Your task to perform on an android device: open chrome and create a bookmark for the current page Image 0: 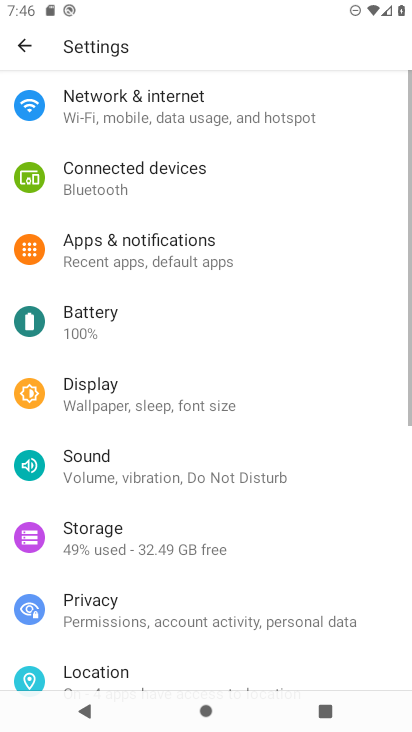
Step 0: press home button
Your task to perform on an android device: open chrome and create a bookmark for the current page Image 1: 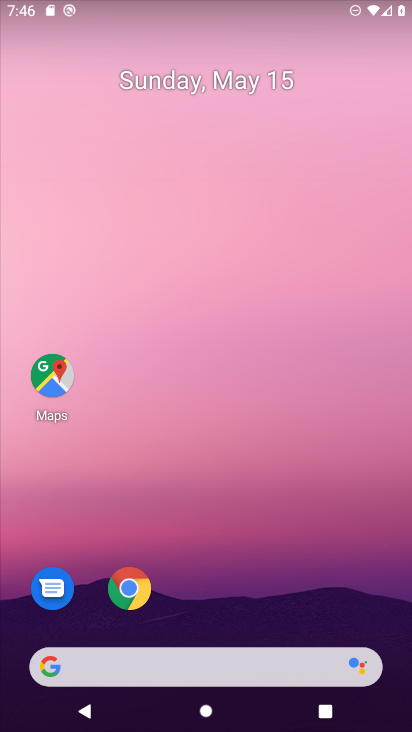
Step 1: click (125, 582)
Your task to perform on an android device: open chrome and create a bookmark for the current page Image 2: 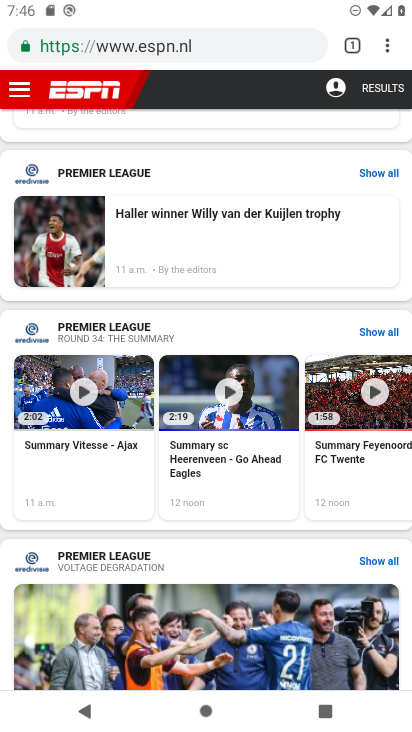
Step 2: click (385, 37)
Your task to perform on an android device: open chrome and create a bookmark for the current page Image 3: 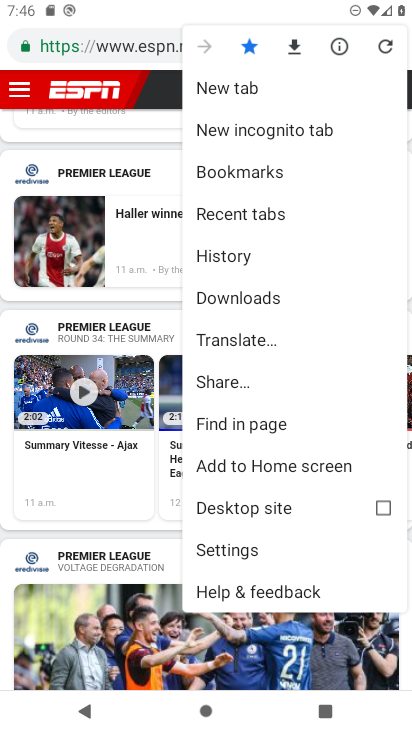
Step 3: task complete